Your task to perform on an android device: uninstall "Google News" Image 0: 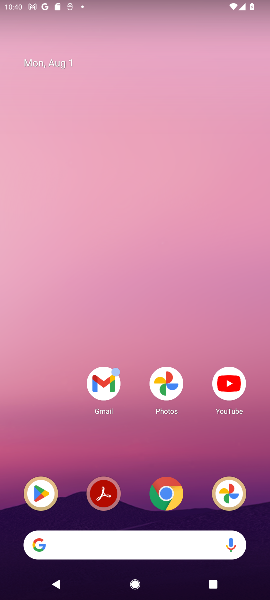
Step 0: click (72, 540)
Your task to perform on an android device: uninstall "Google News" Image 1: 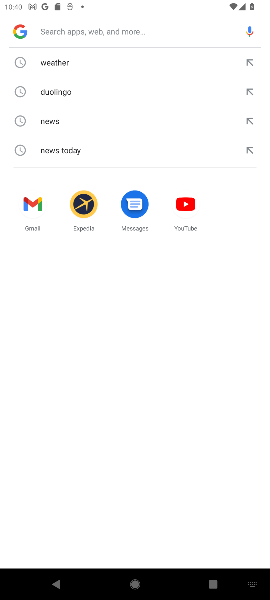
Step 1: click (65, 119)
Your task to perform on an android device: uninstall "Google News" Image 2: 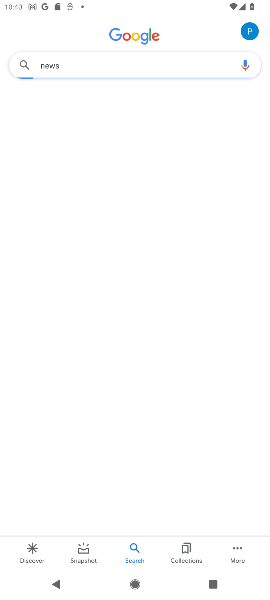
Step 2: task complete